Your task to perform on an android device: Open Google Image 0: 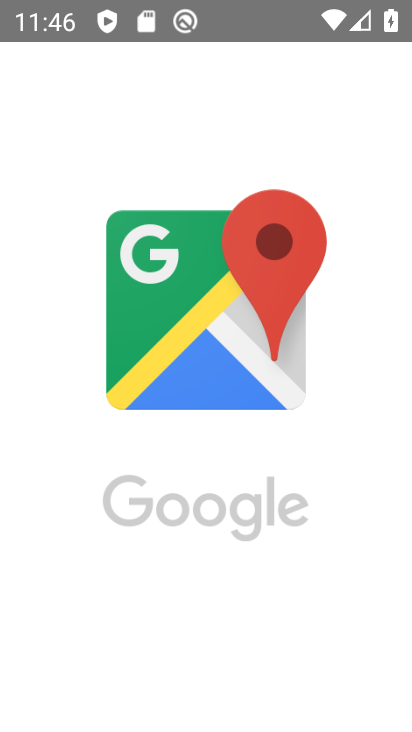
Step 0: drag from (98, 584) to (179, 86)
Your task to perform on an android device: Open Google Image 1: 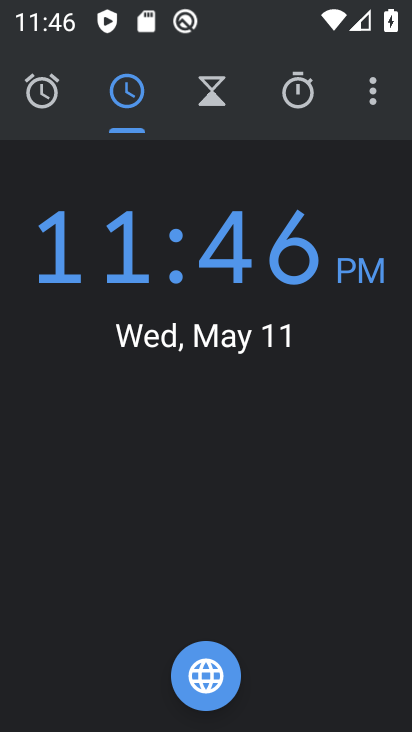
Step 1: press home button
Your task to perform on an android device: Open Google Image 2: 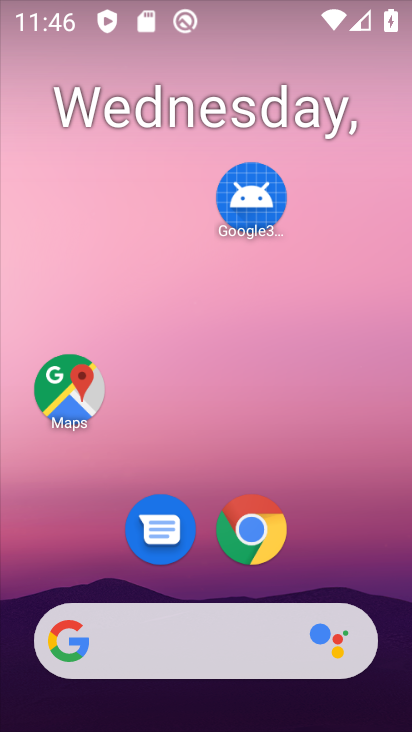
Step 2: drag from (155, 600) to (282, 75)
Your task to perform on an android device: Open Google Image 3: 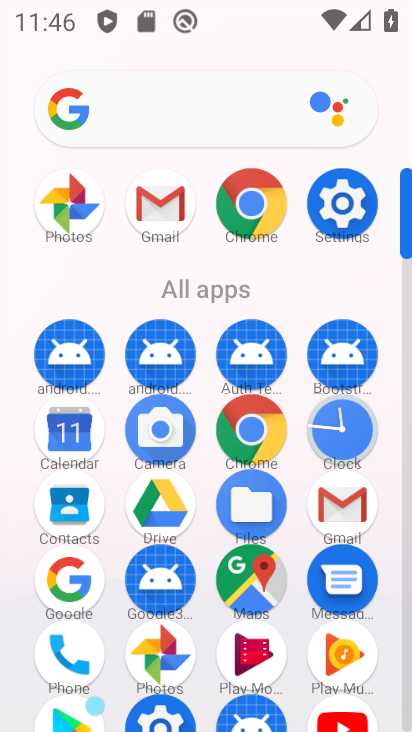
Step 3: click (77, 589)
Your task to perform on an android device: Open Google Image 4: 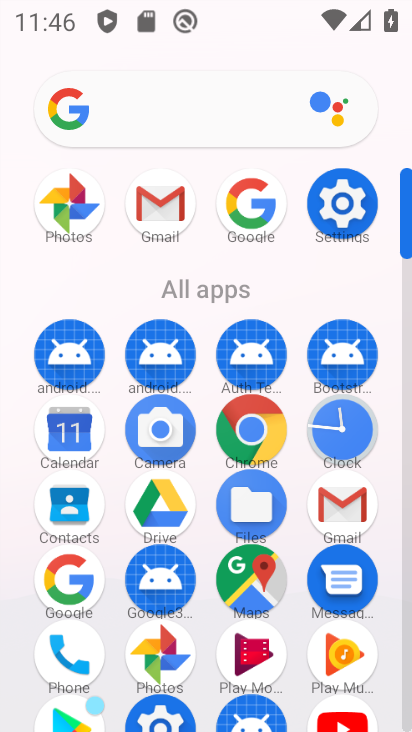
Step 4: click (77, 587)
Your task to perform on an android device: Open Google Image 5: 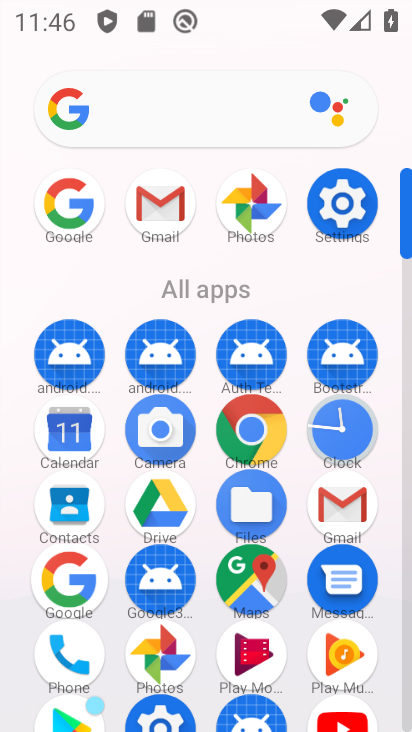
Step 5: click (77, 583)
Your task to perform on an android device: Open Google Image 6: 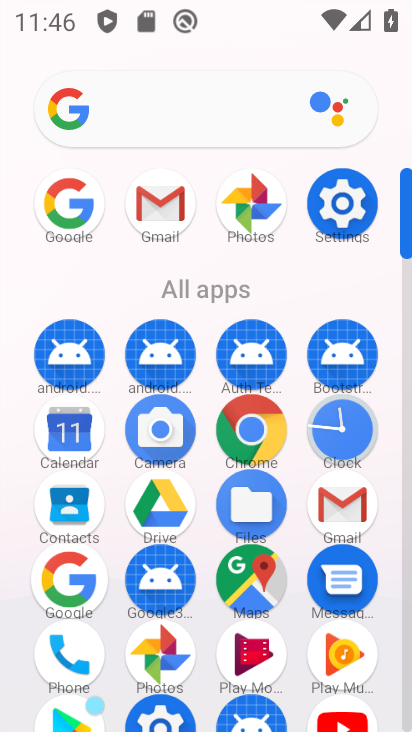
Step 6: click (72, 601)
Your task to perform on an android device: Open Google Image 7: 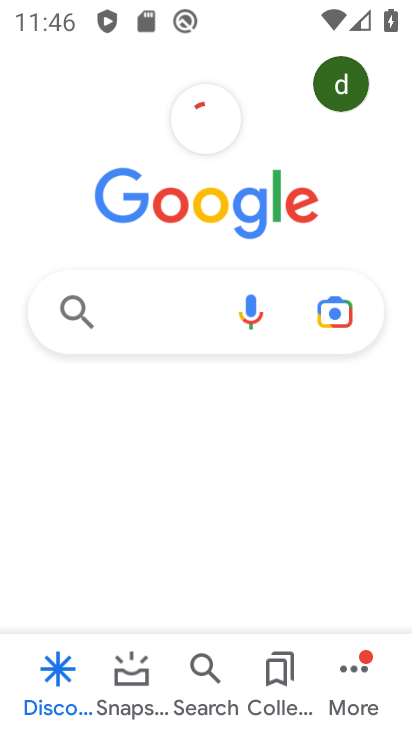
Step 7: task complete